Your task to perform on an android device: Open network settings Image 0: 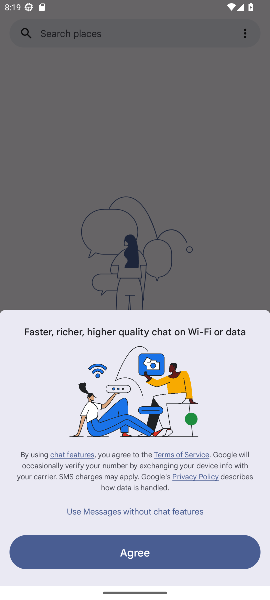
Step 0: press home button
Your task to perform on an android device: Open network settings Image 1: 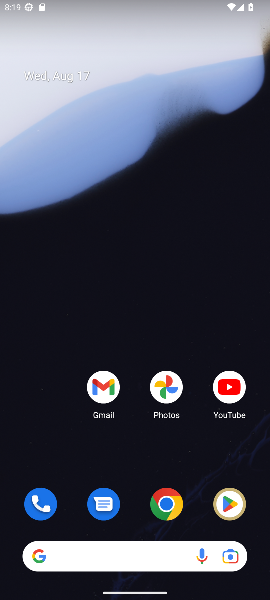
Step 1: drag from (141, 442) to (157, 40)
Your task to perform on an android device: Open network settings Image 2: 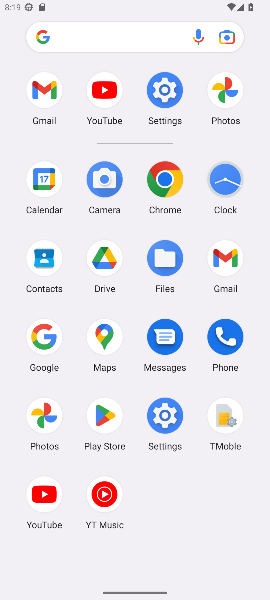
Step 2: click (177, 92)
Your task to perform on an android device: Open network settings Image 3: 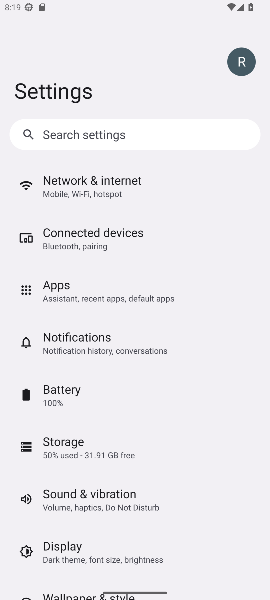
Step 3: click (182, 176)
Your task to perform on an android device: Open network settings Image 4: 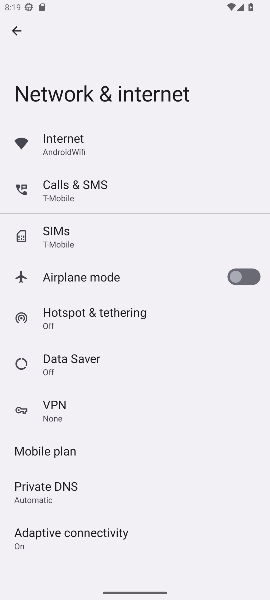
Step 4: task complete